Your task to perform on an android device: change notification settings in the gmail app Image 0: 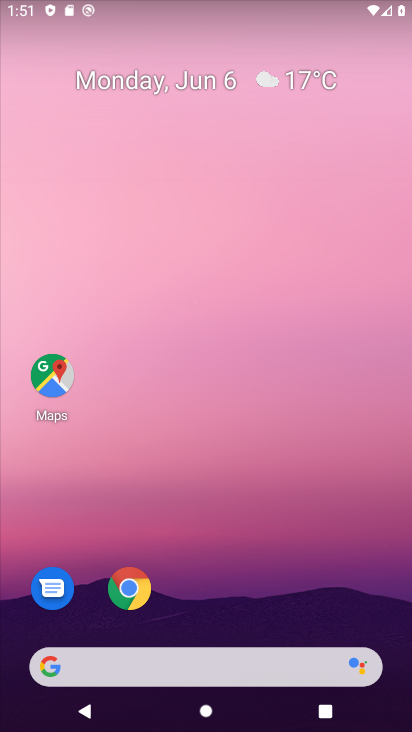
Step 0: drag from (195, 644) to (408, 544)
Your task to perform on an android device: change notification settings in the gmail app Image 1: 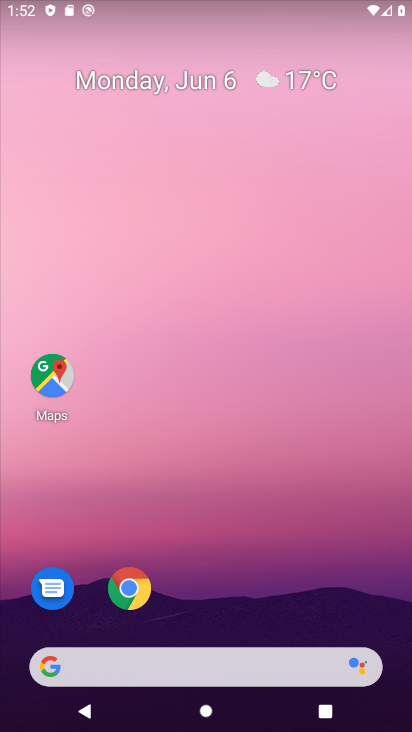
Step 1: drag from (169, 652) to (188, 45)
Your task to perform on an android device: change notification settings in the gmail app Image 2: 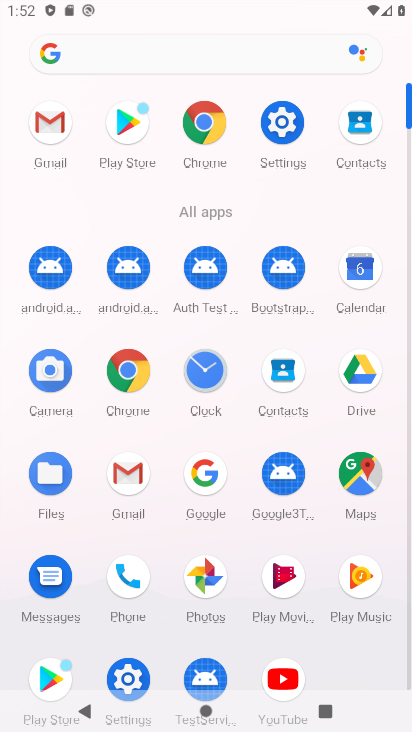
Step 2: click (58, 138)
Your task to perform on an android device: change notification settings in the gmail app Image 3: 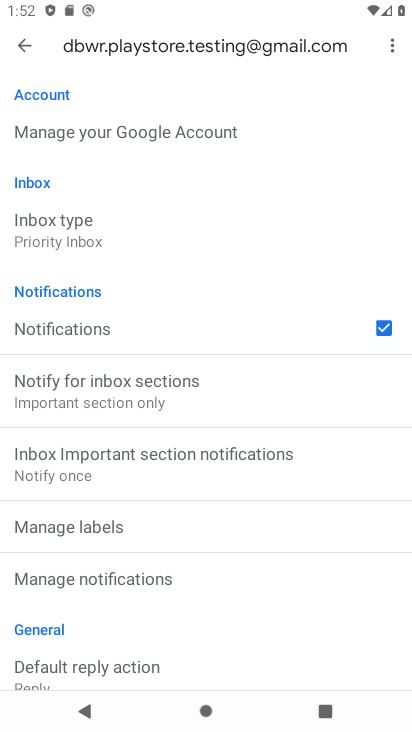
Step 3: click (190, 572)
Your task to perform on an android device: change notification settings in the gmail app Image 4: 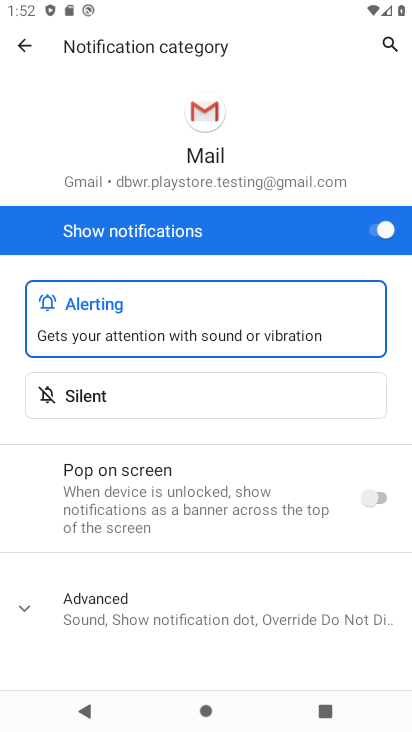
Step 4: click (375, 225)
Your task to perform on an android device: change notification settings in the gmail app Image 5: 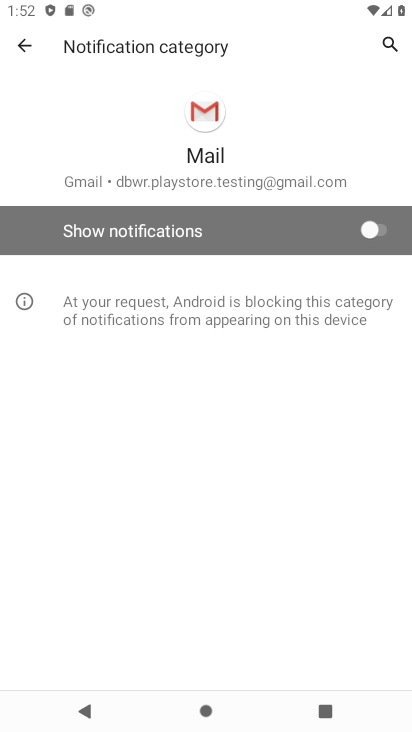
Step 5: task complete